Your task to perform on an android device: Open settings Image 0: 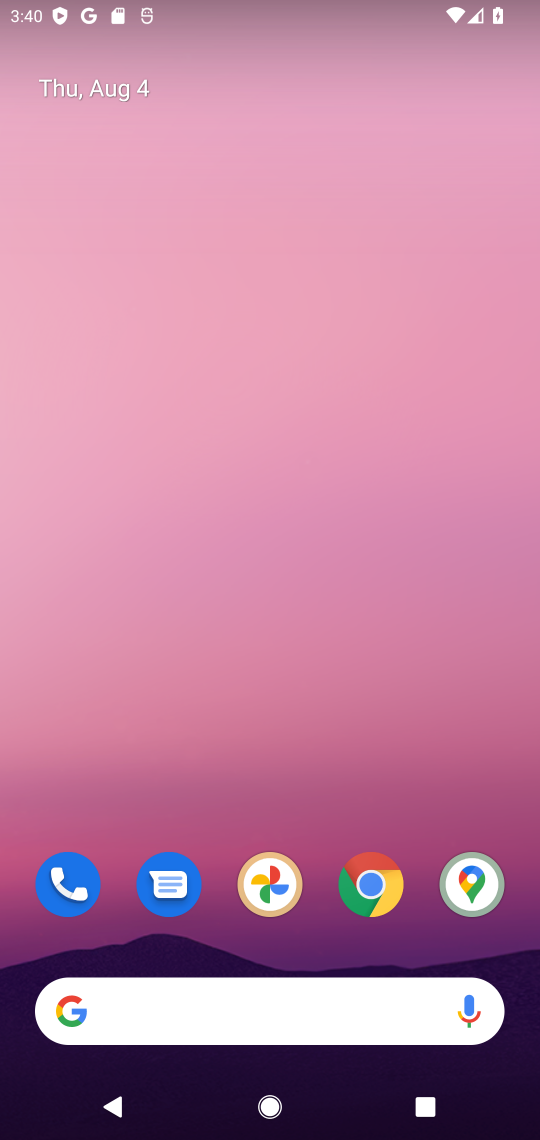
Step 0: drag from (240, 906) to (276, 141)
Your task to perform on an android device: Open settings Image 1: 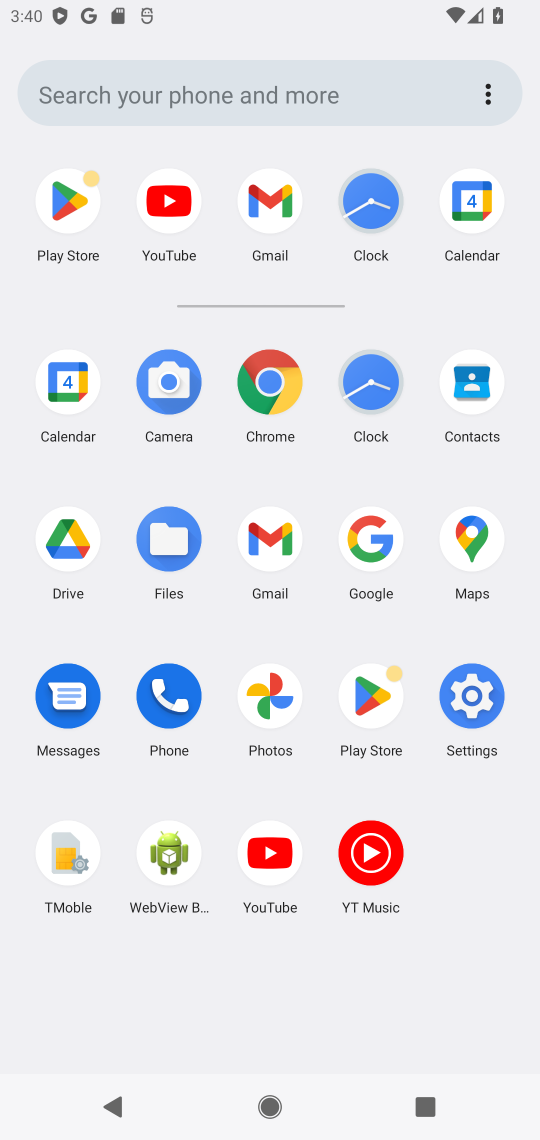
Step 1: click (468, 705)
Your task to perform on an android device: Open settings Image 2: 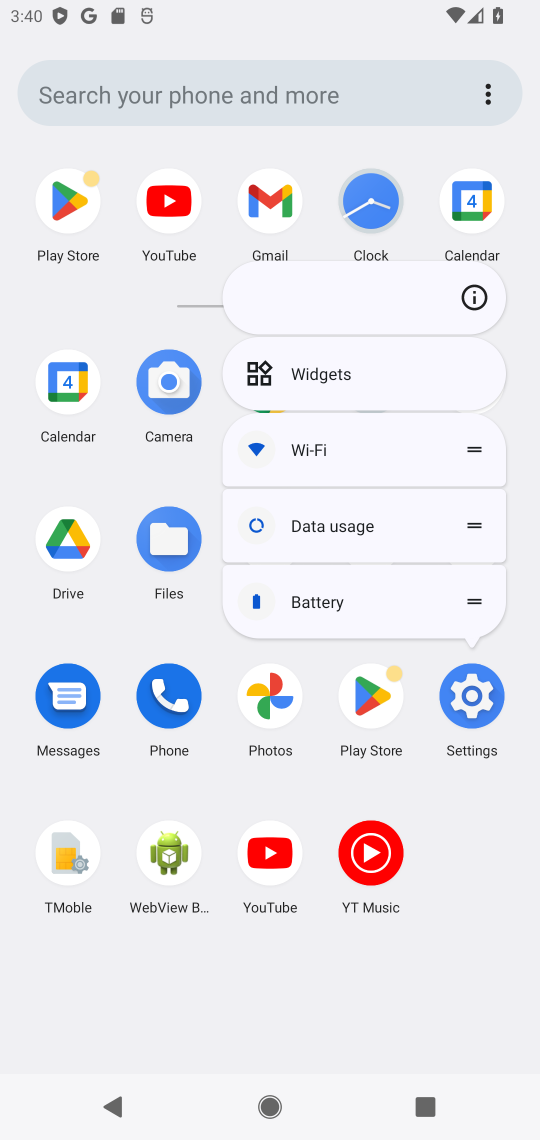
Step 2: click (473, 289)
Your task to perform on an android device: Open settings Image 3: 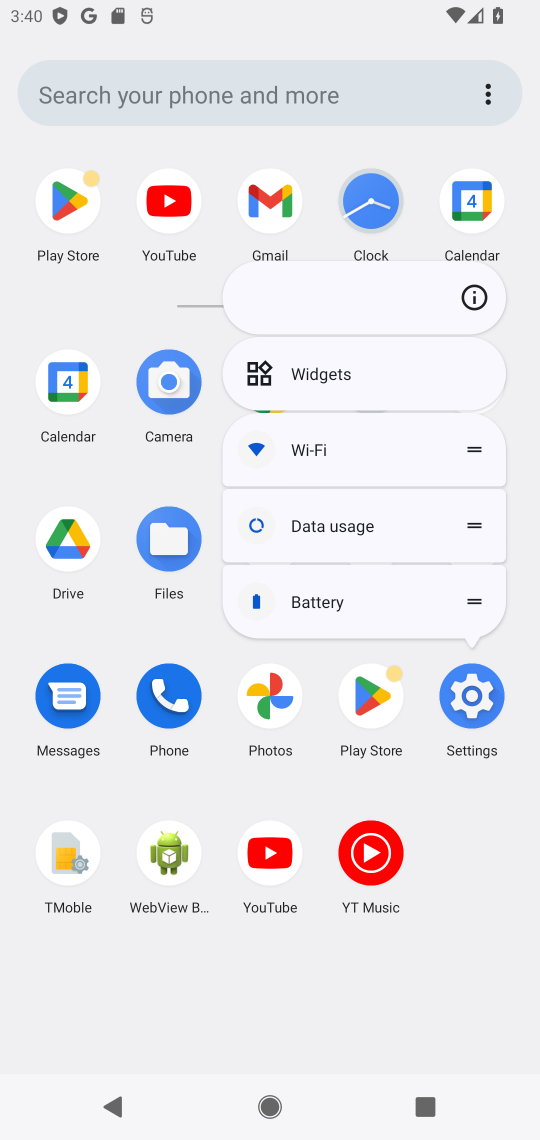
Step 3: click (478, 294)
Your task to perform on an android device: Open settings Image 4: 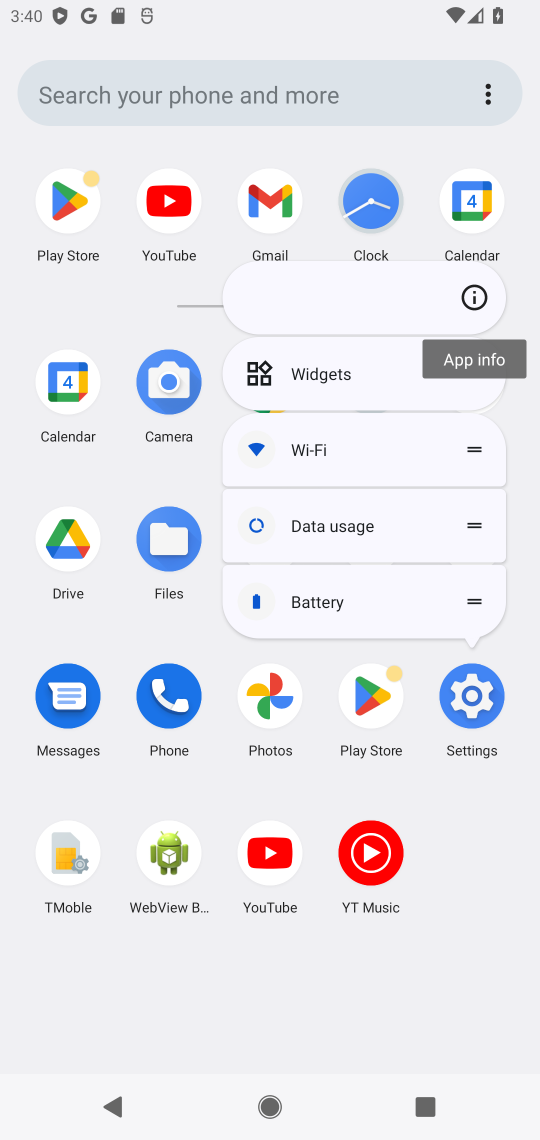
Step 4: click (476, 295)
Your task to perform on an android device: Open settings Image 5: 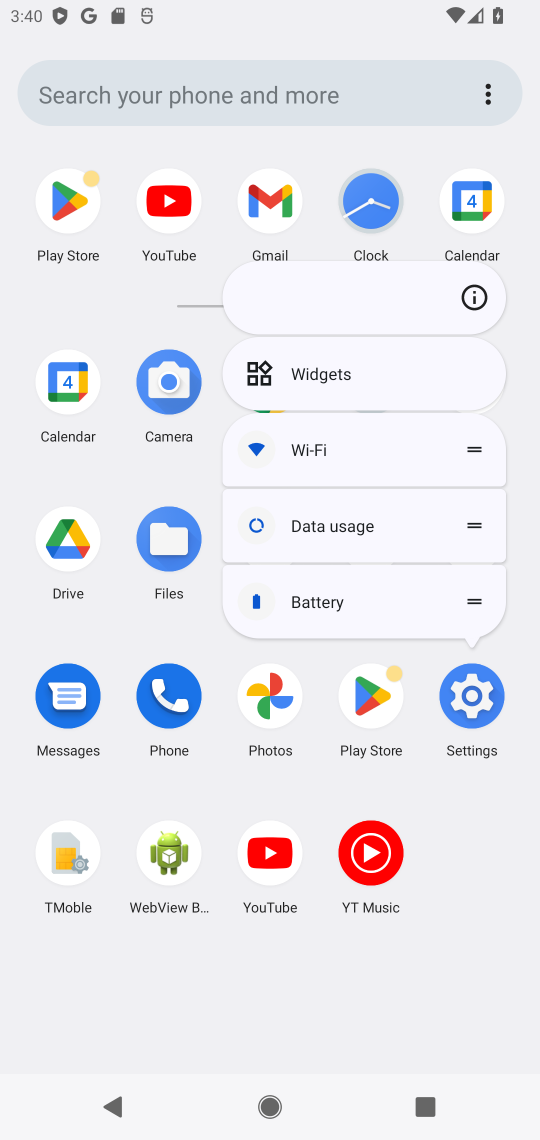
Step 5: click (473, 299)
Your task to perform on an android device: Open settings Image 6: 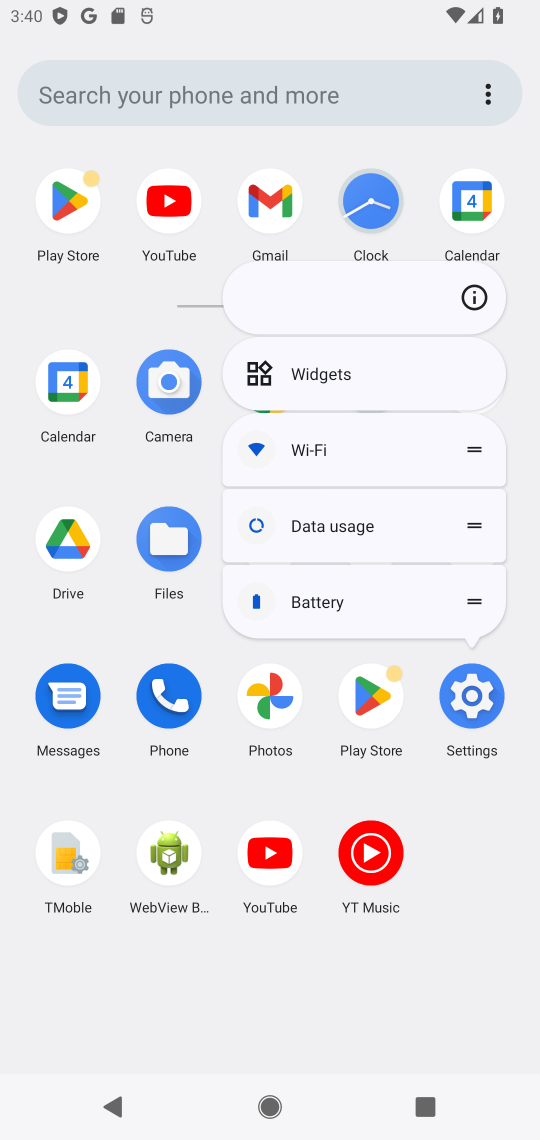
Step 6: click (471, 318)
Your task to perform on an android device: Open settings Image 7: 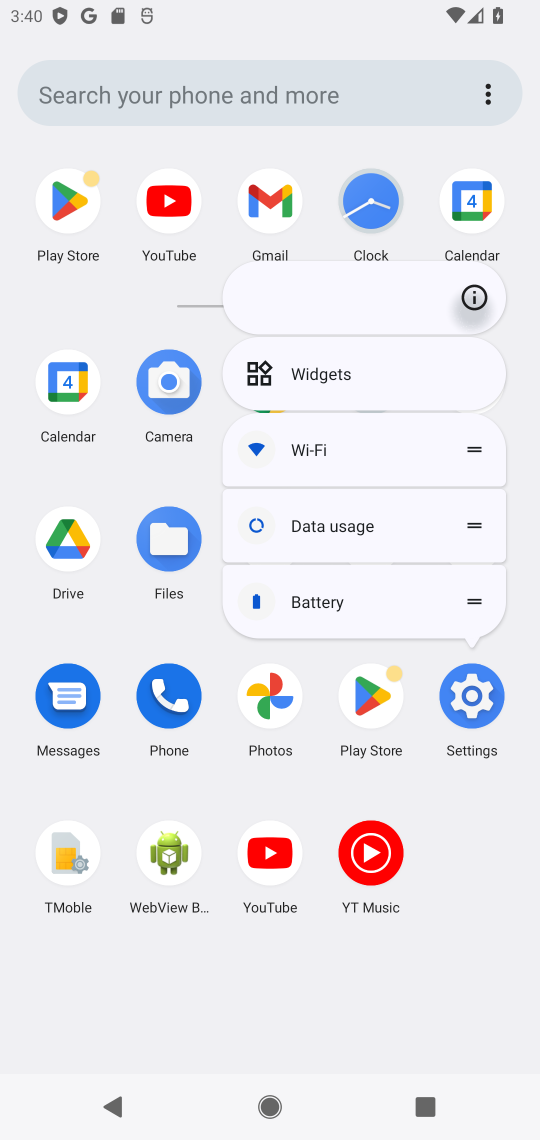
Step 7: click (482, 293)
Your task to perform on an android device: Open settings Image 8: 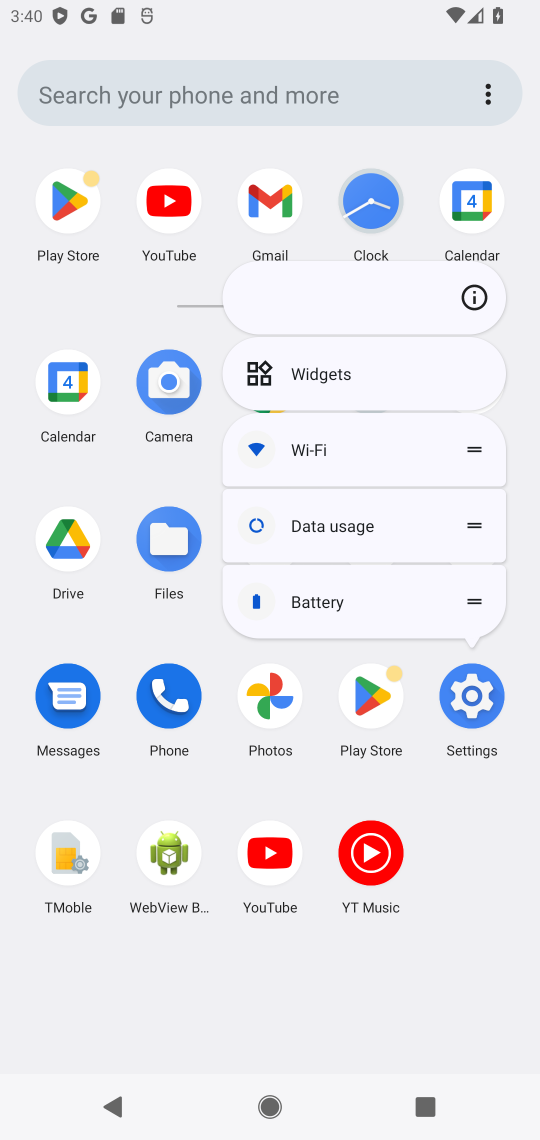
Step 8: click (482, 293)
Your task to perform on an android device: Open settings Image 9: 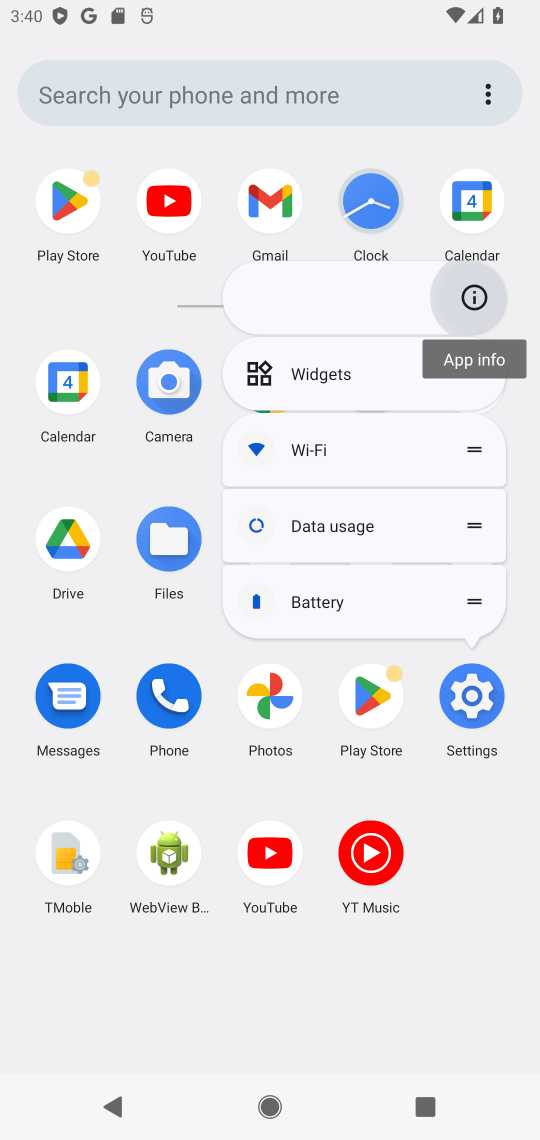
Step 9: click (482, 293)
Your task to perform on an android device: Open settings Image 10: 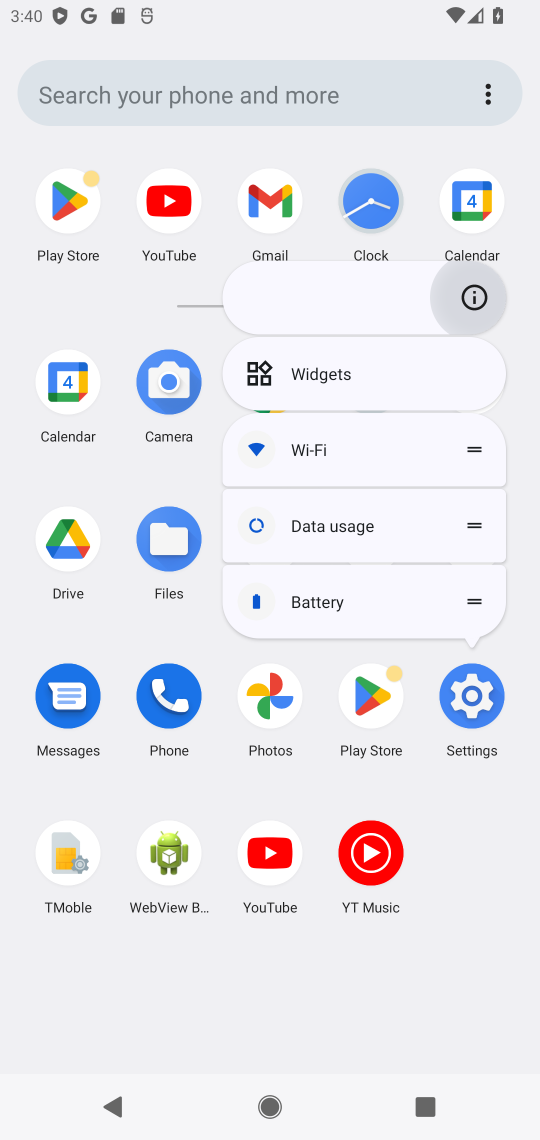
Step 10: click (482, 293)
Your task to perform on an android device: Open settings Image 11: 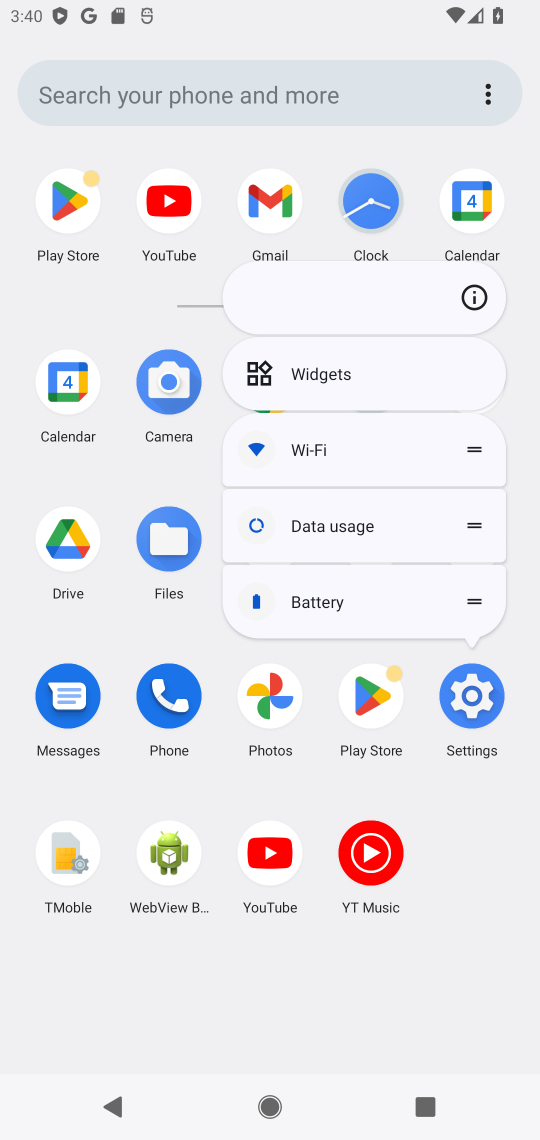
Step 11: click (482, 293)
Your task to perform on an android device: Open settings Image 12: 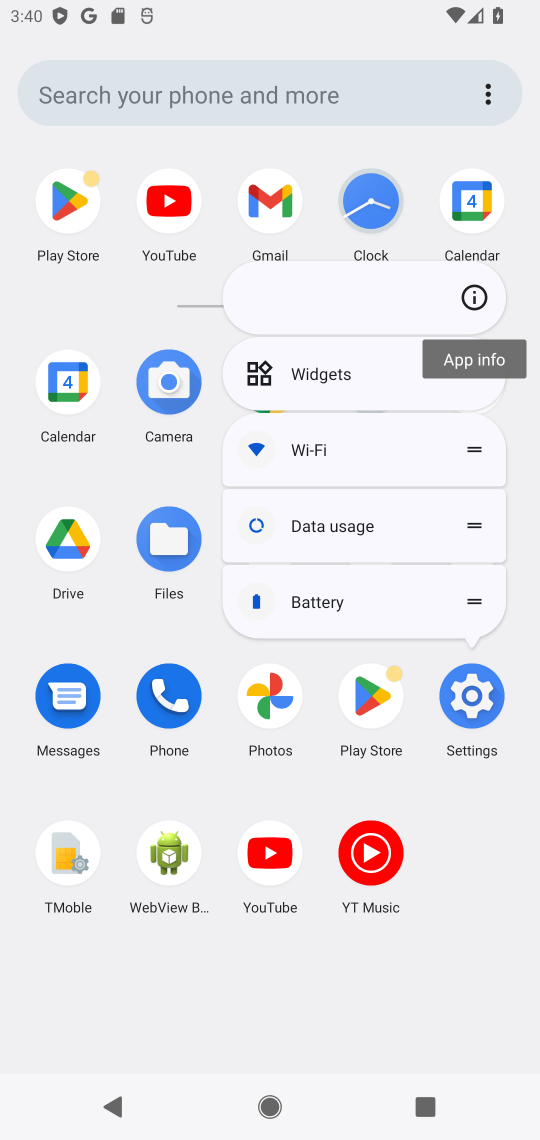
Step 12: click (474, 298)
Your task to perform on an android device: Open settings Image 13: 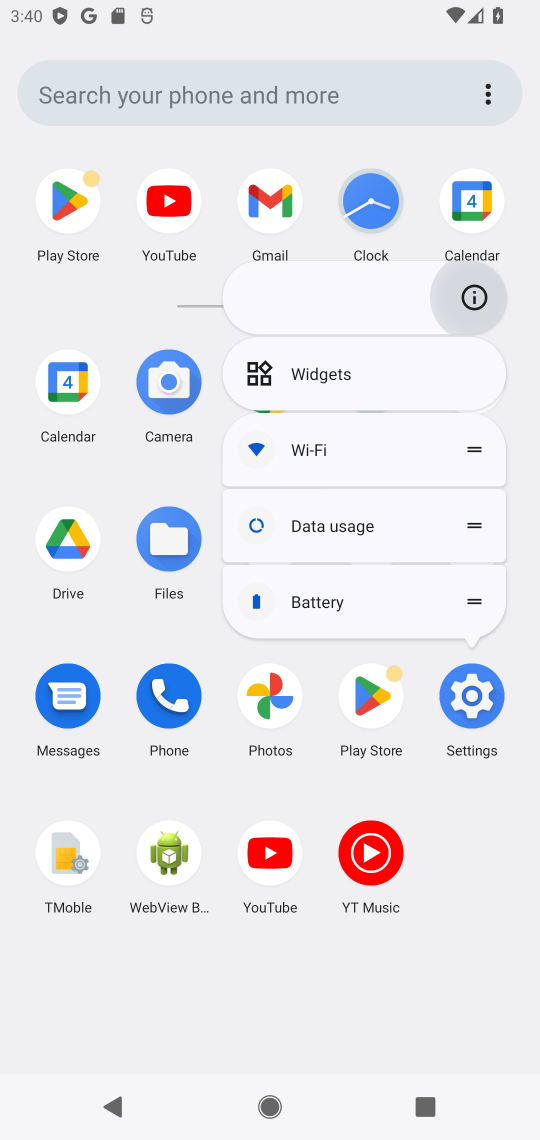
Step 13: click (469, 311)
Your task to perform on an android device: Open settings Image 14: 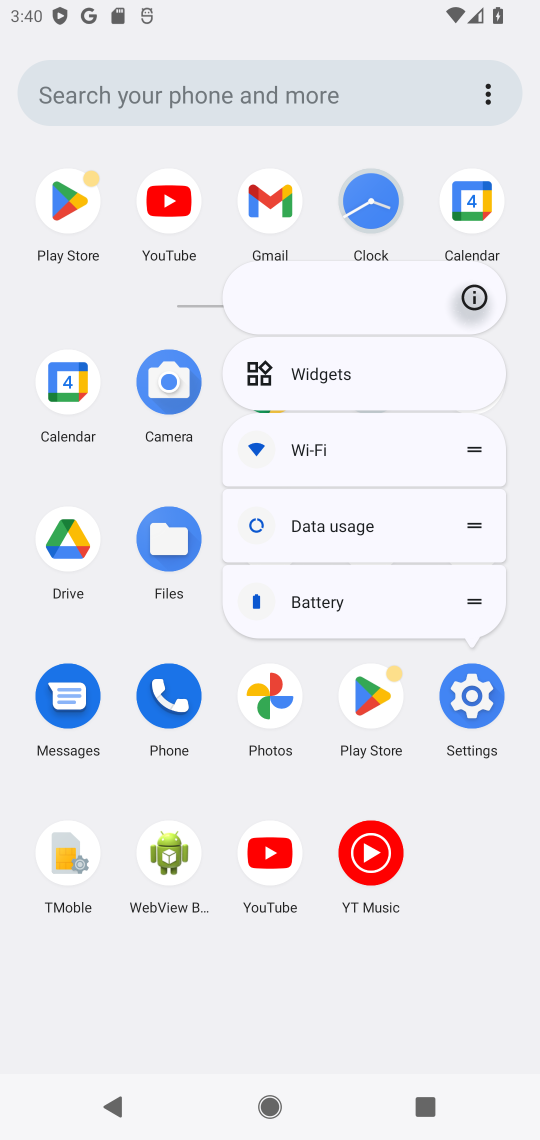
Step 14: click (469, 311)
Your task to perform on an android device: Open settings Image 15: 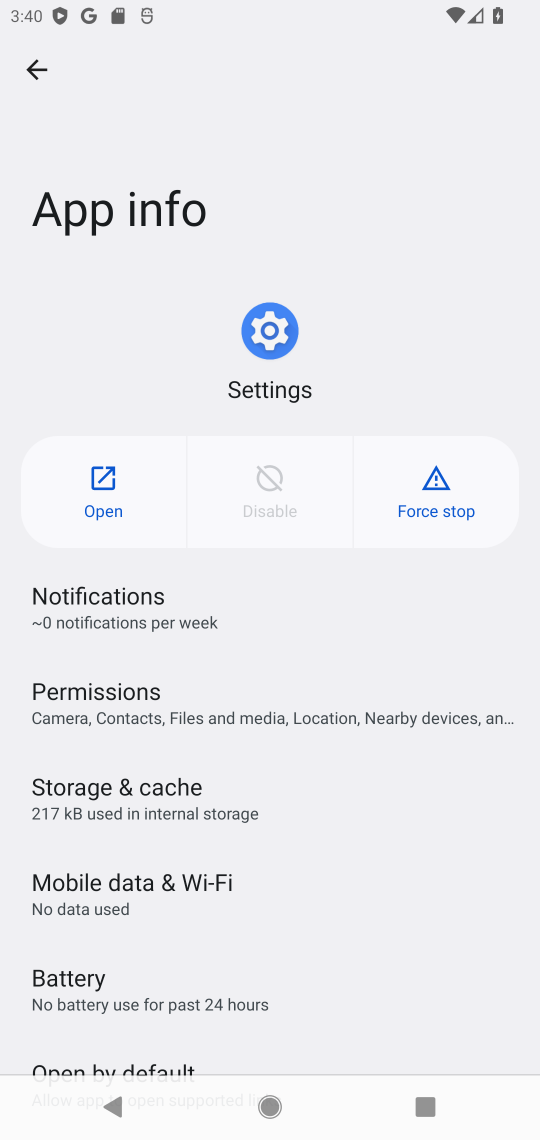
Step 15: click (119, 507)
Your task to perform on an android device: Open settings Image 16: 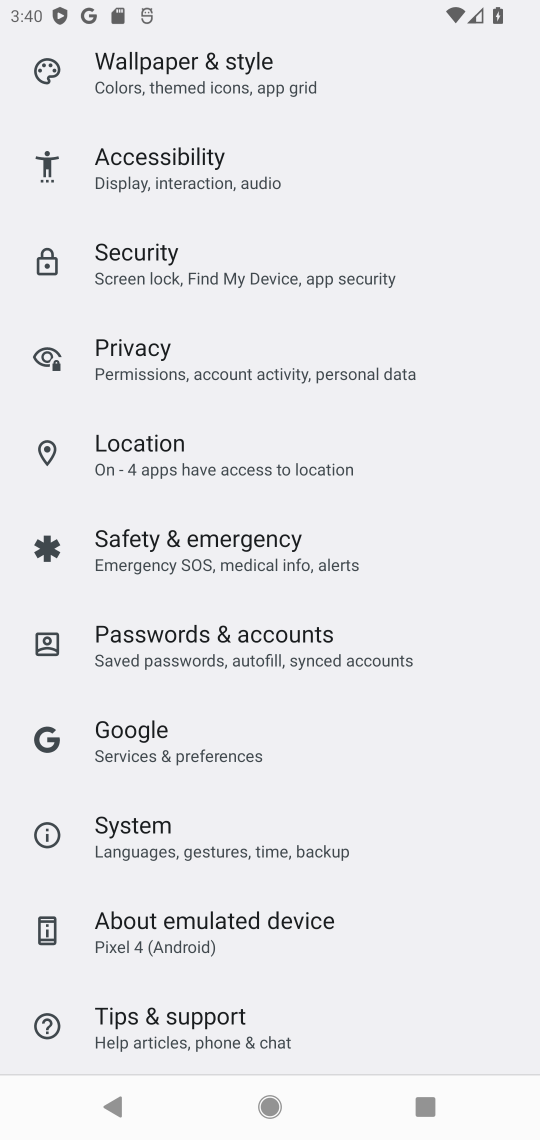
Step 16: task complete